Your task to perform on an android device: open a bookmark in the chrome app Image 0: 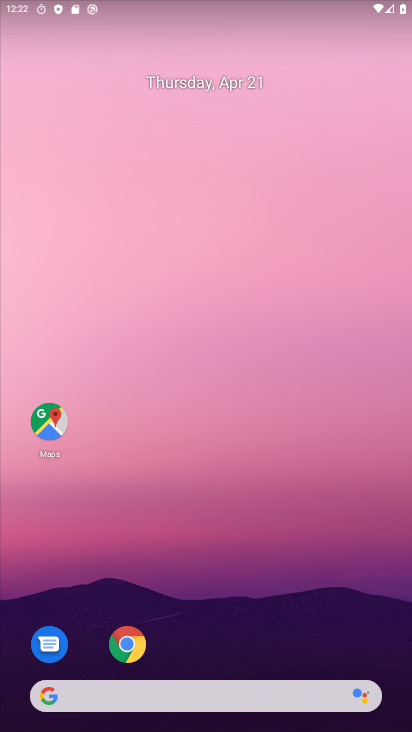
Step 0: click (128, 639)
Your task to perform on an android device: open a bookmark in the chrome app Image 1: 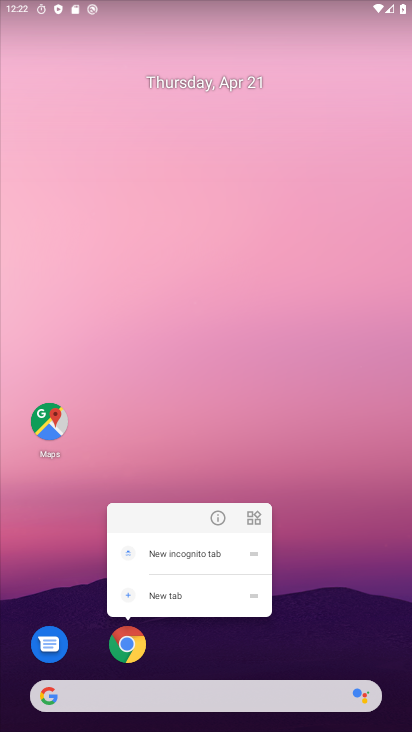
Step 1: click (127, 644)
Your task to perform on an android device: open a bookmark in the chrome app Image 2: 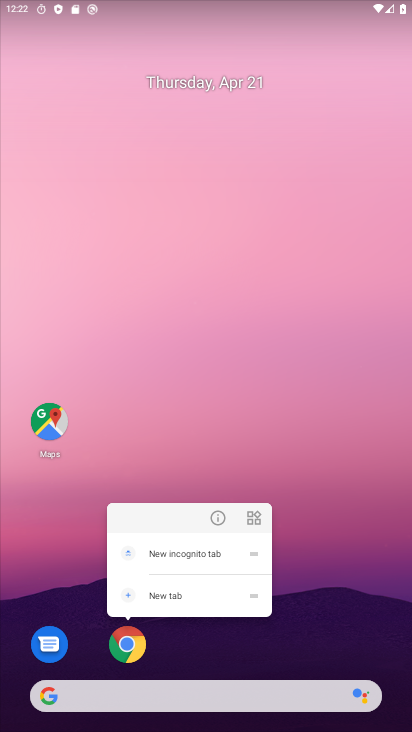
Step 2: click (128, 644)
Your task to perform on an android device: open a bookmark in the chrome app Image 3: 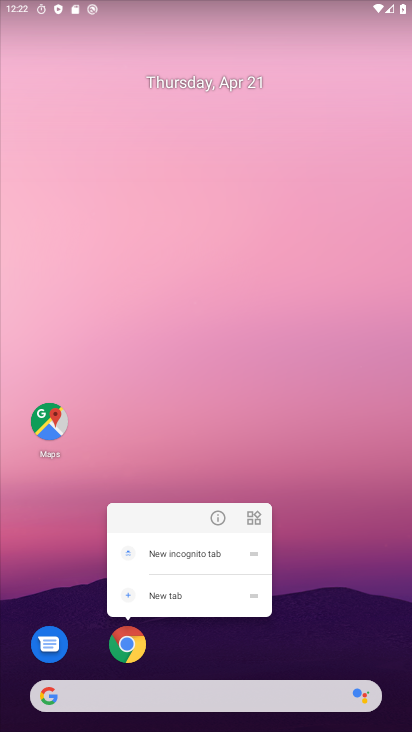
Step 3: click (133, 640)
Your task to perform on an android device: open a bookmark in the chrome app Image 4: 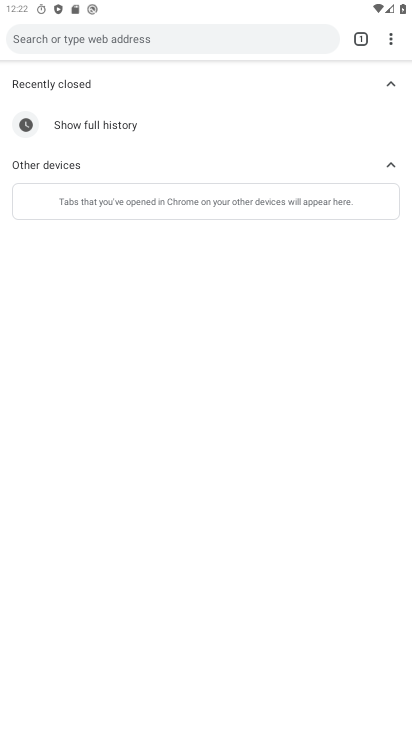
Step 4: task complete